Your task to perform on an android device: delete a single message in the gmail app Image 0: 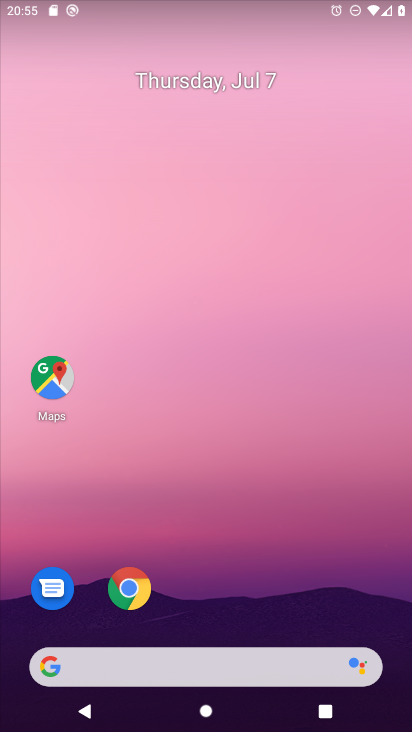
Step 0: drag from (198, 663) to (202, 253)
Your task to perform on an android device: delete a single message in the gmail app Image 1: 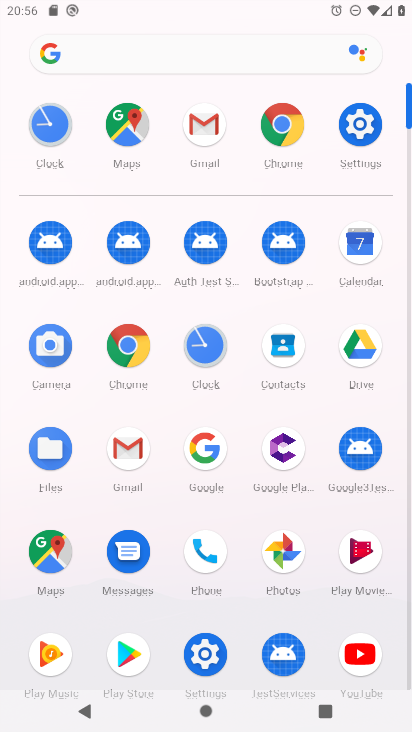
Step 1: click (117, 436)
Your task to perform on an android device: delete a single message in the gmail app Image 2: 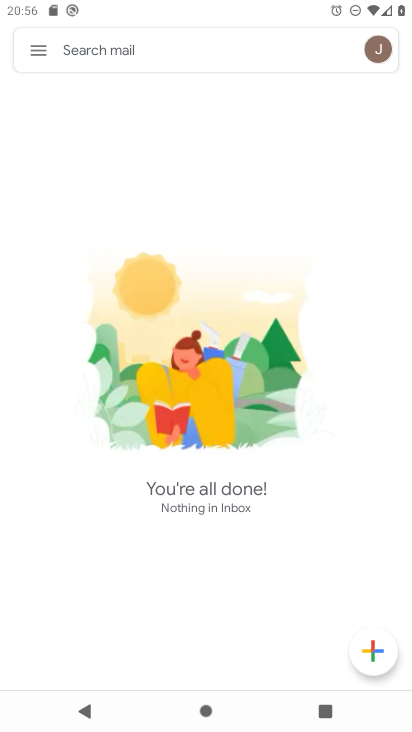
Step 2: click (31, 52)
Your task to perform on an android device: delete a single message in the gmail app Image 3: 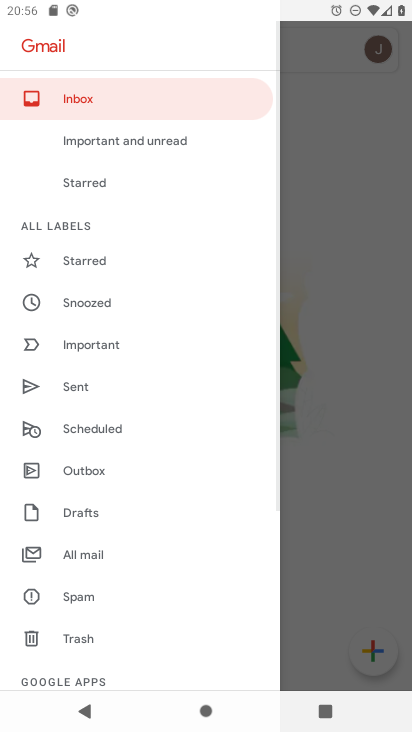
Step 3: click (95, 553)
Your task to perform on an android device: delete a single message in the gmail app Image 4: 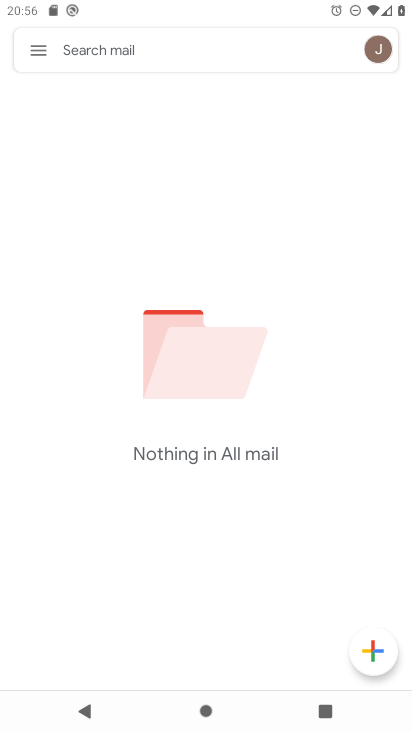
Step 4: task complete